Your task to perform on an android device: Find coffee shops on Maps Image 0: 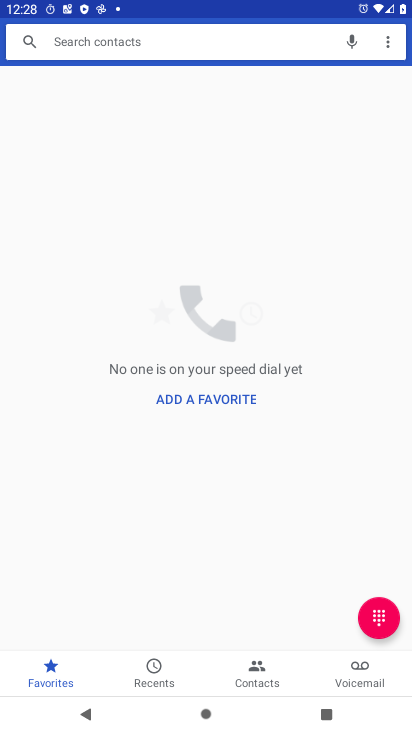
Step 0: press home button
Your task to perform on an android device: Find coffee shops on Maps Image 1: 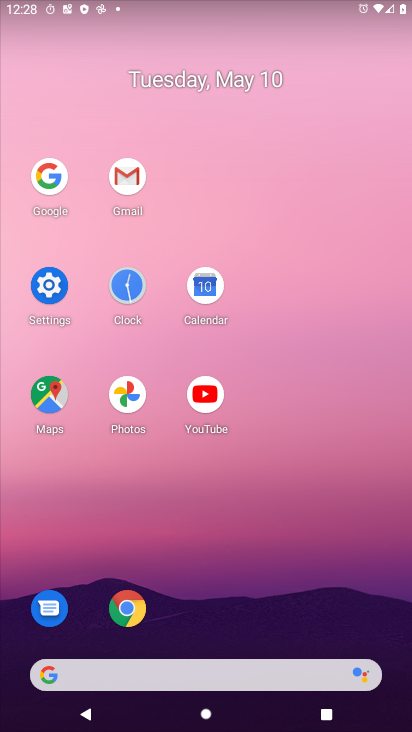
Step 1: click (58, 394)
Your task to perform on an android device: Find coffee shops on Maps Image 2: 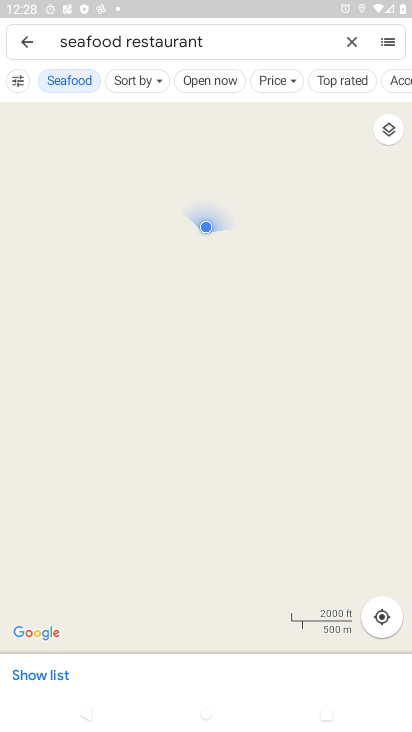
Step 2: click (352, 44)
Your task to perform on an android device: Find coffee shops on Maps Image 3: 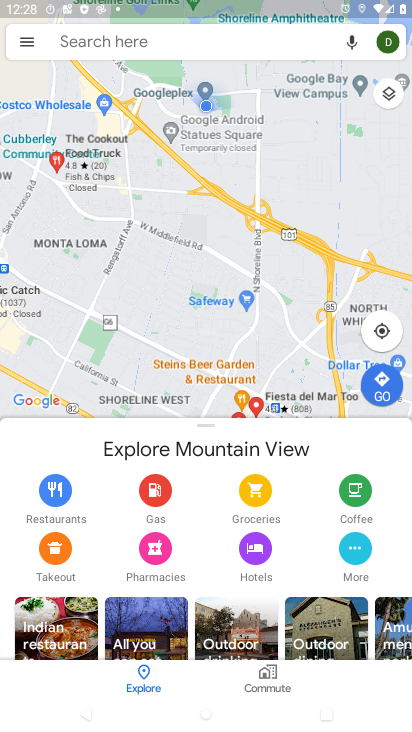
Step 3: click (188, 40)
Your task to perform on an android device: Find coffee shops on Maps Image 4: 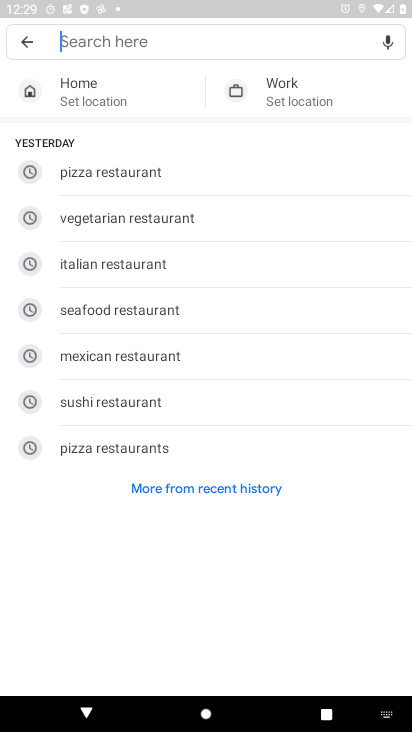
Step 4: type "coffee"
Your task to perform on an android device: Find coffee shops on Maps Image 5: 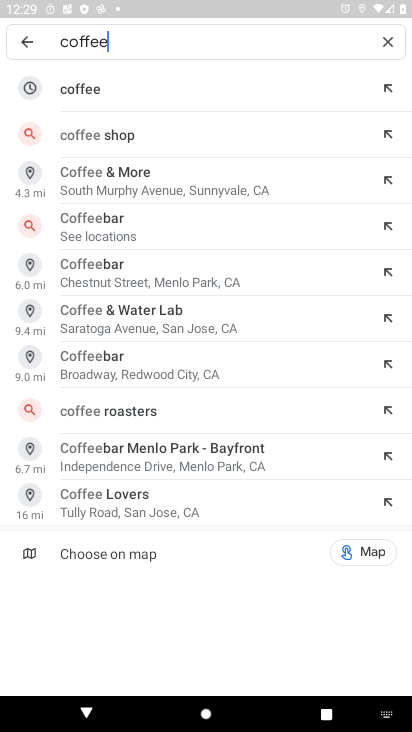
Step 5: task complete